Your task to perform on an android device: find snoozed emails in the gmail app Image 0: 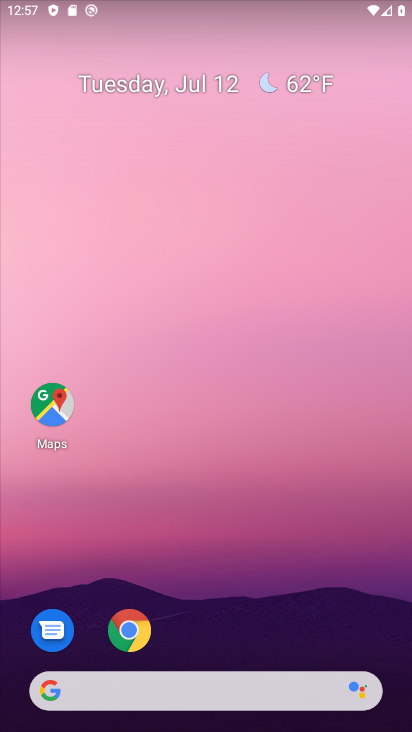
Step 0: drag from (218, 622) to (191, 108)
Your task to perform on an android device: find snoozed emails in the gmail app Image 1: 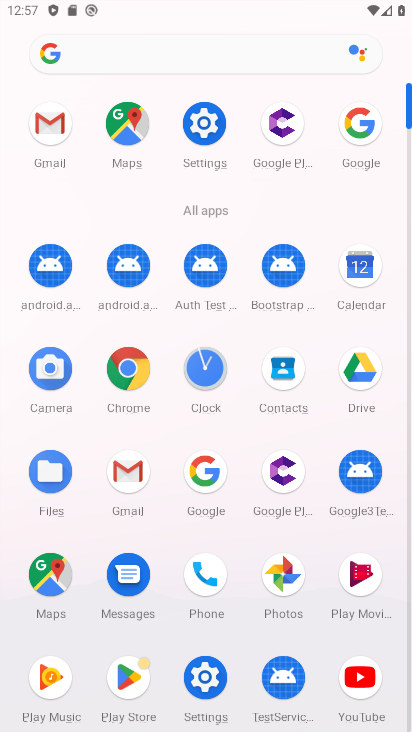
Step 1: click (44, 127)
Your task to perform on an android device: find snoozed emails in the gmail app Image 2: 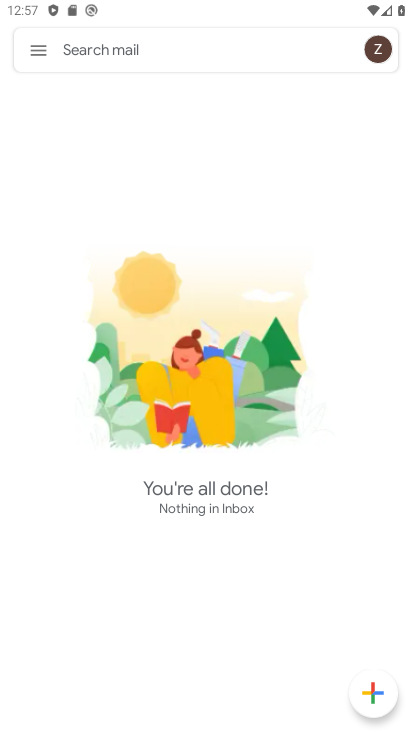
Step 2: click (41, 47)
Your task to perform on an android device: find snoozed emails in the gmail app Image 3: 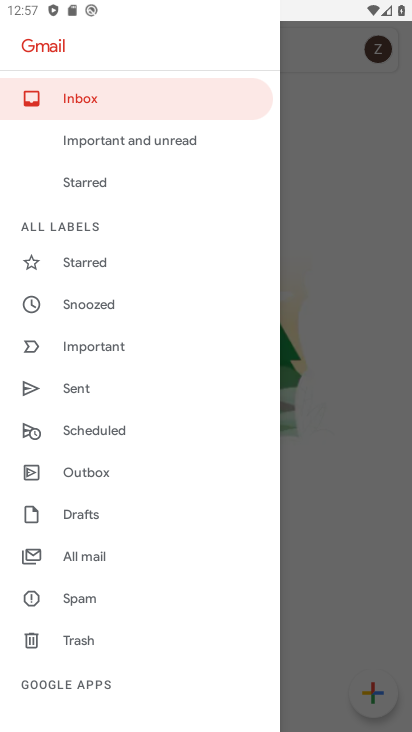
Step 3: click (107, 297)
Your task to perform on an android device: find snoozed emails in the gmail app Image 4: 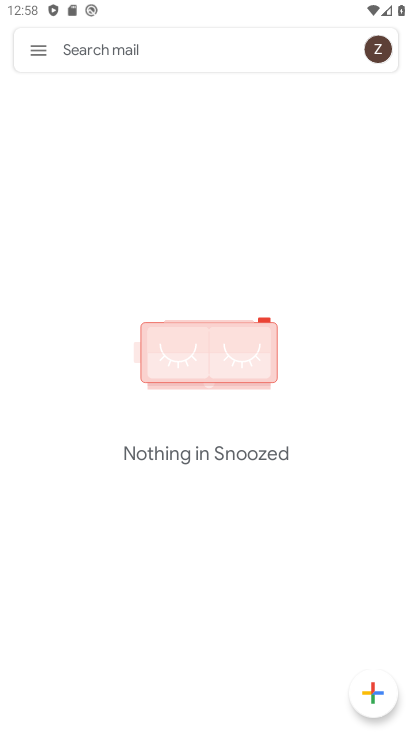
Step 4: task complete